Your task to perform on an android device: Is it going to rain tomorrow? Image 0: 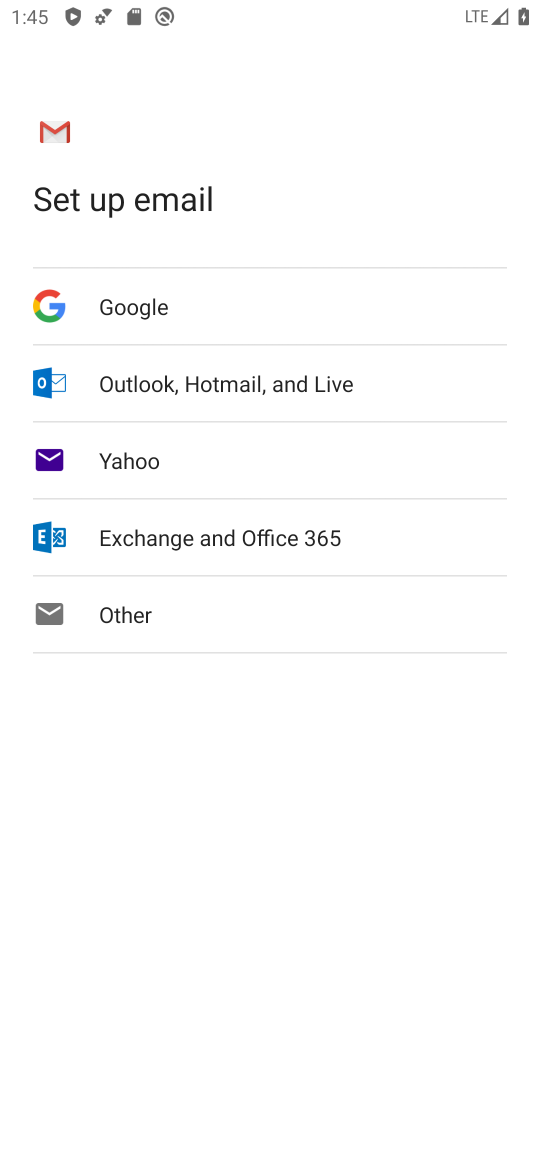
Step 0: press home button
Your task to perform on an android device: Is it going to rain tomorrow? Image 1: 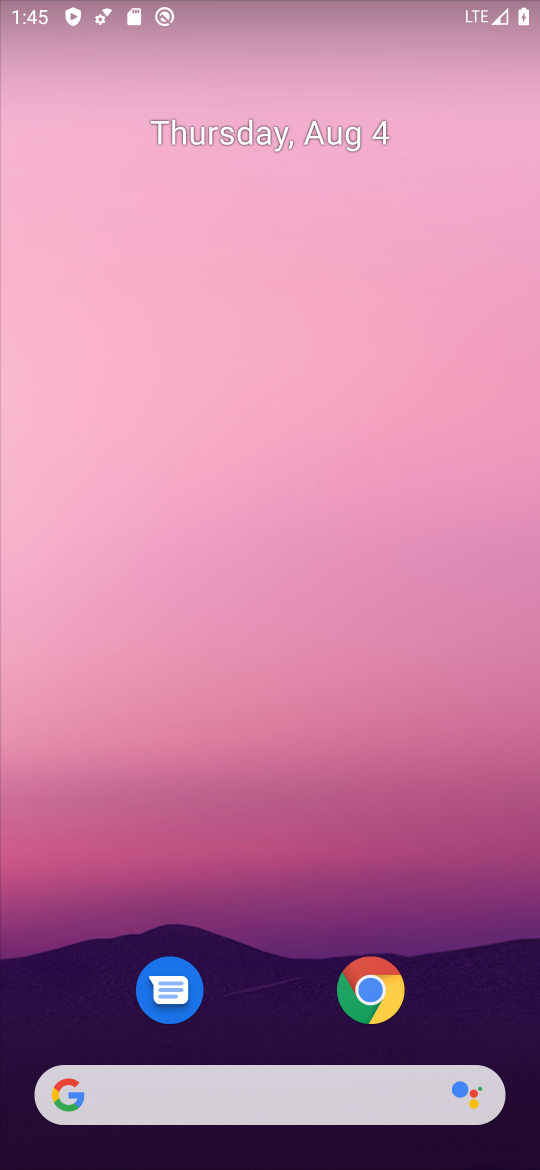
Step 1: drag from (275, 1061) to (341, 425)
Your task to perform on an android device: Is it going to rain tomorrow? Image 2: 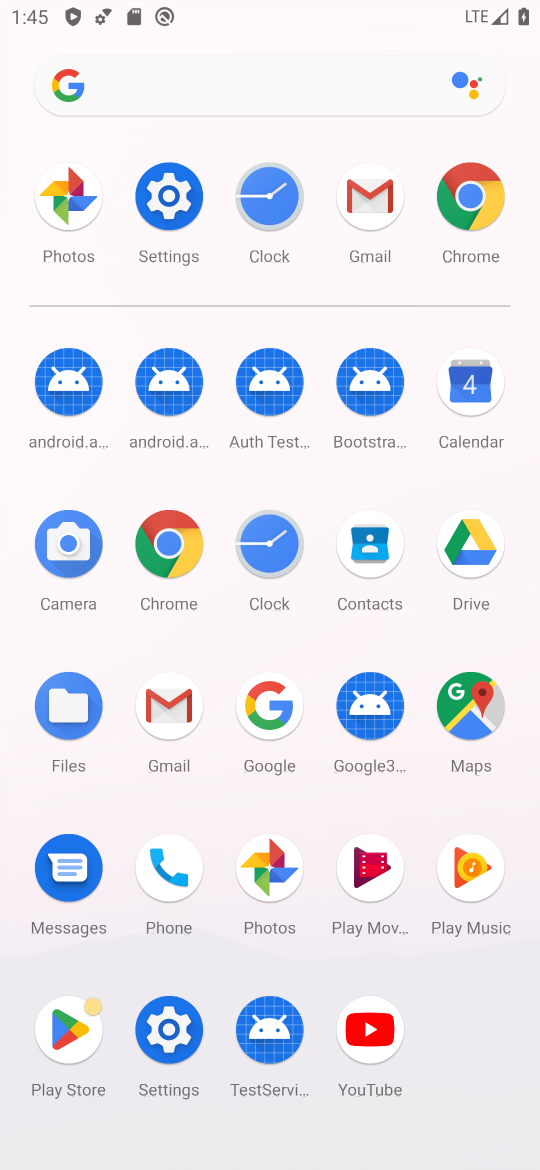
Step 2: click (261, 69)
Your task to perform on an android device: Is it going to rain tomorrow? Image 3: 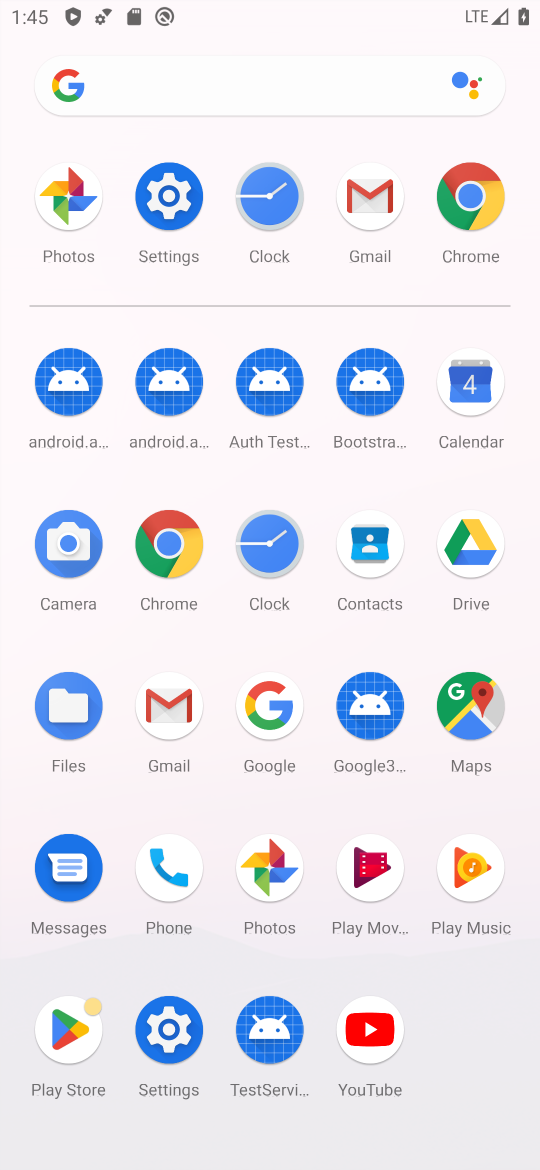
Step 3: click (261, 69)
Your task to perform on an android device: Is it going to rain tomorrow? Image 4: 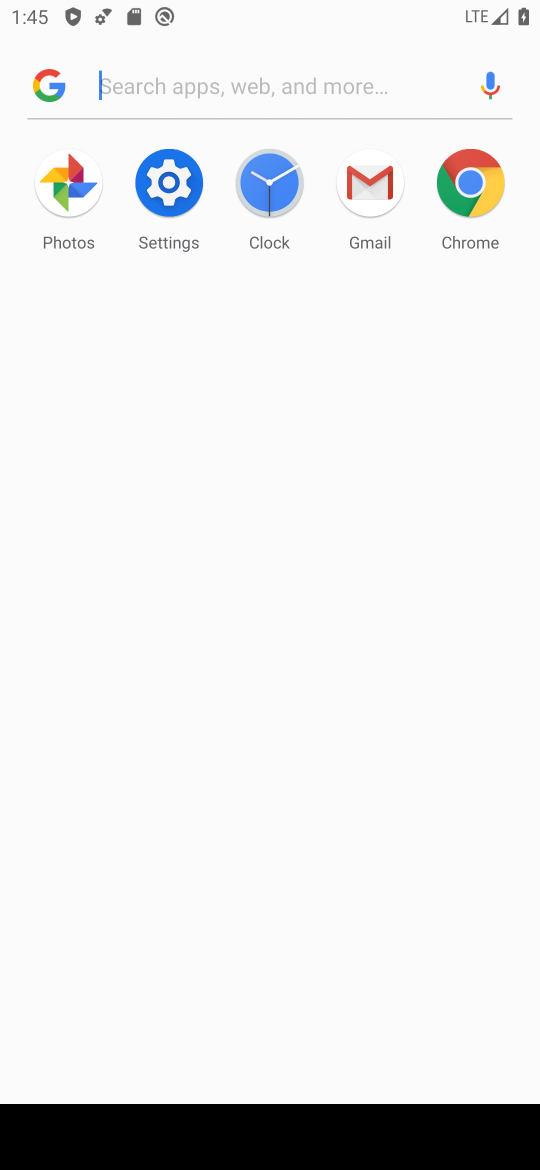
Step 4: click (261, 69)
Your task to perform on an android device: Is it going to rain tomorrow? Image 5: 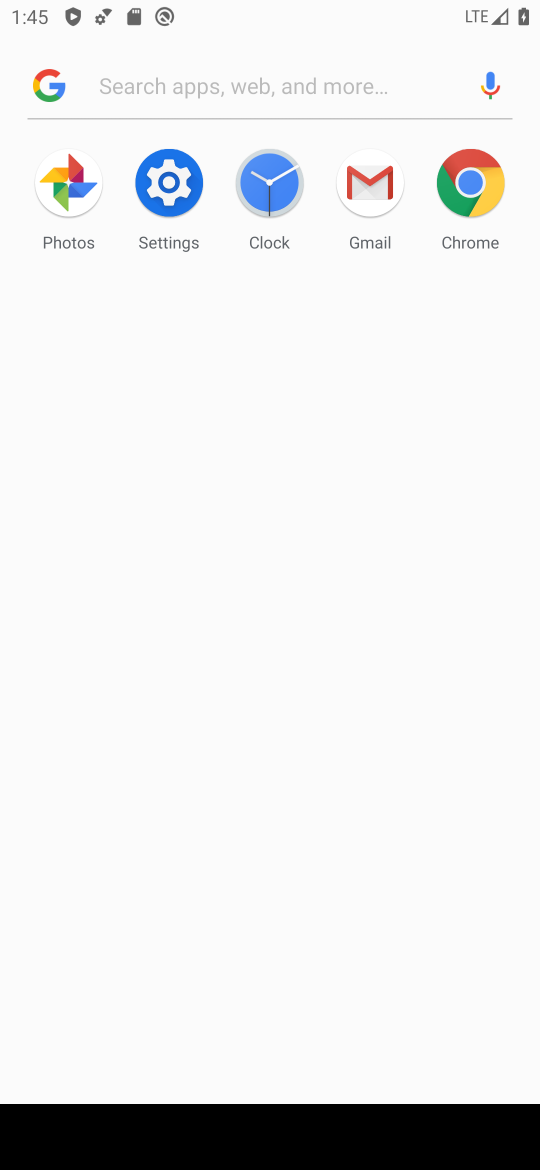
Step 5: type "weather"
Your task to perform on an android device: Is it going to rain tomorrow? Image 6: 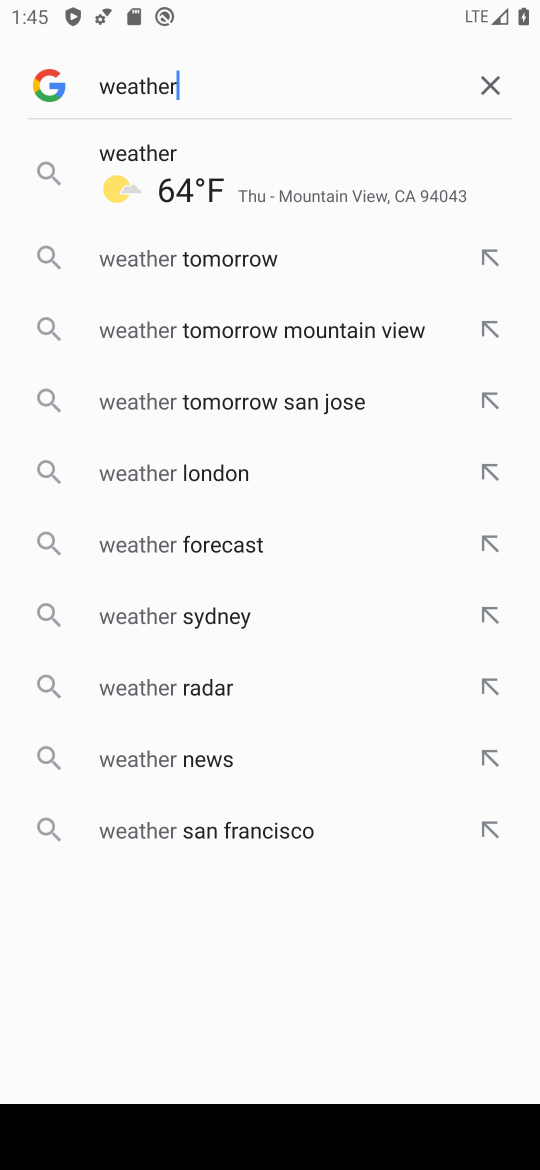
Step 6: click (253, 219)
Your task to perform on an android device: Is it going to rain tomorrow? Image 7: 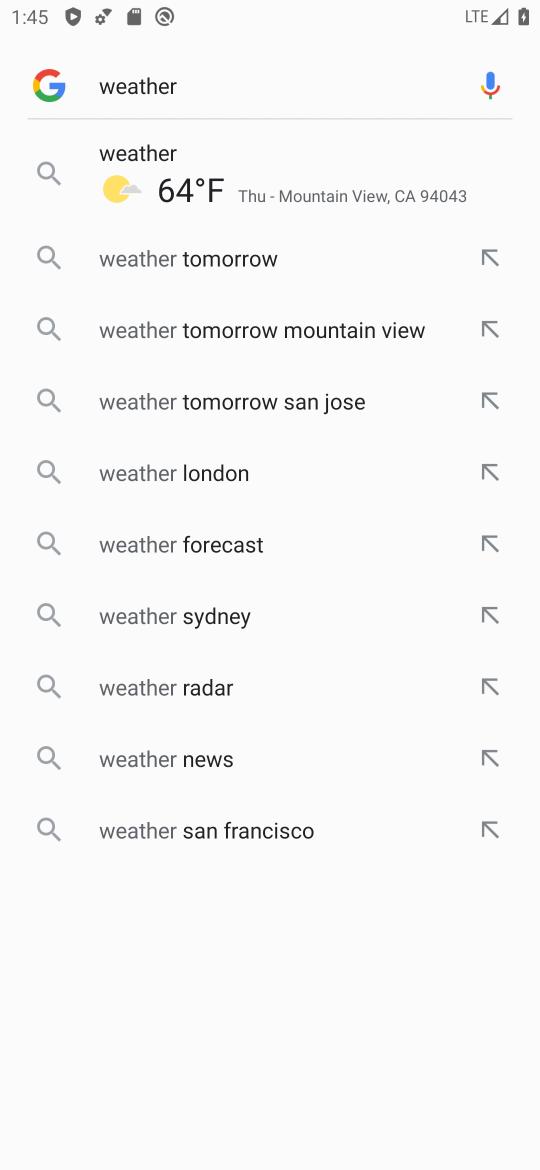
Step 7: click (253, 219)
Your task to perform on an android device: Is it going to rain tomorrow? Image 8: 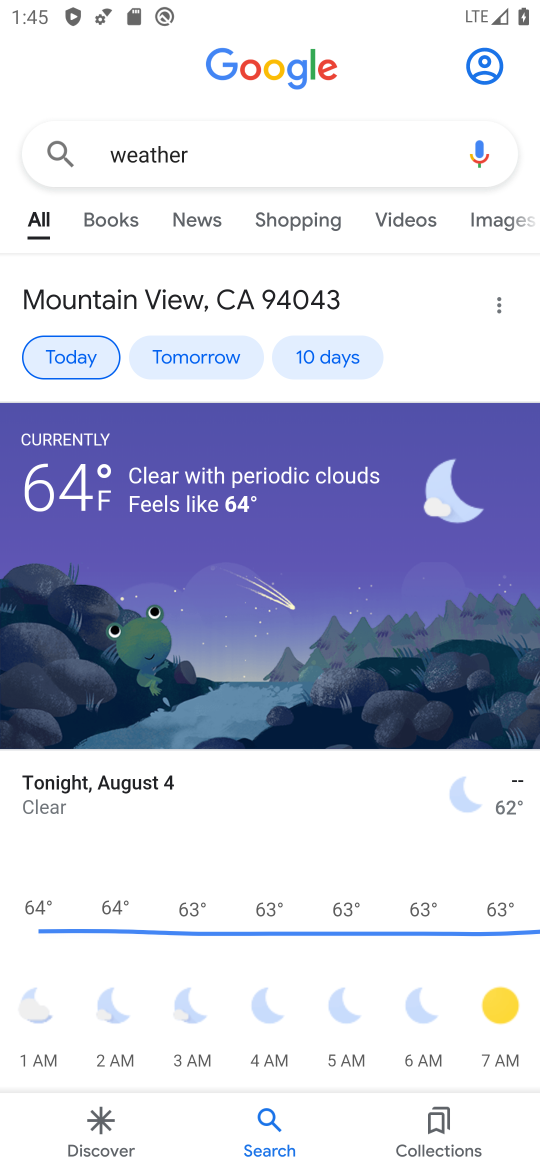
Step 8: task complete